Your task to perform on an android device: What's the latest news in space technology? Image 0: 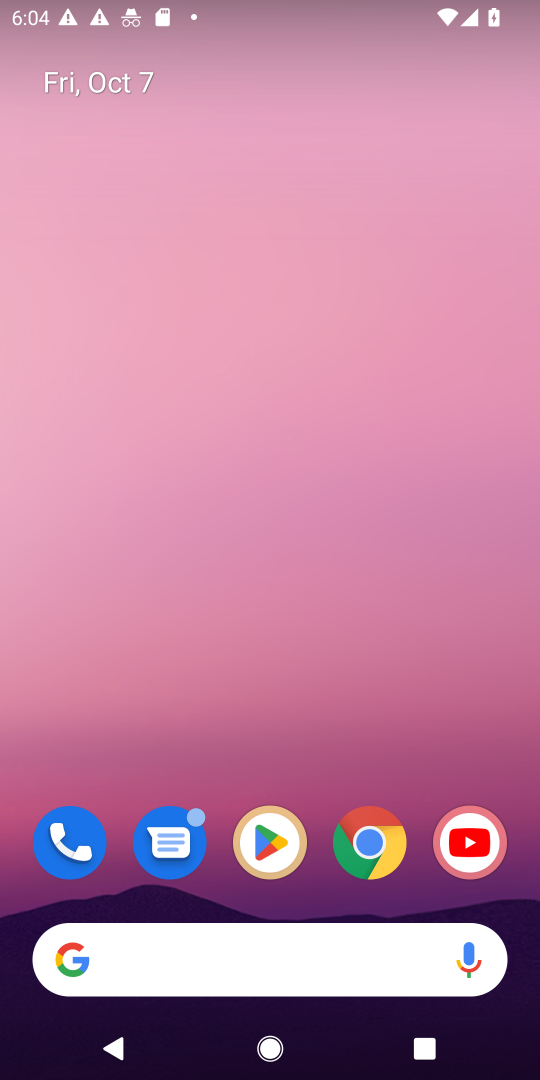
Step 0: drag from (281, 911) to (389, 51)
Your task to perform on an android device: What's the latest news in space technology? Image 1: 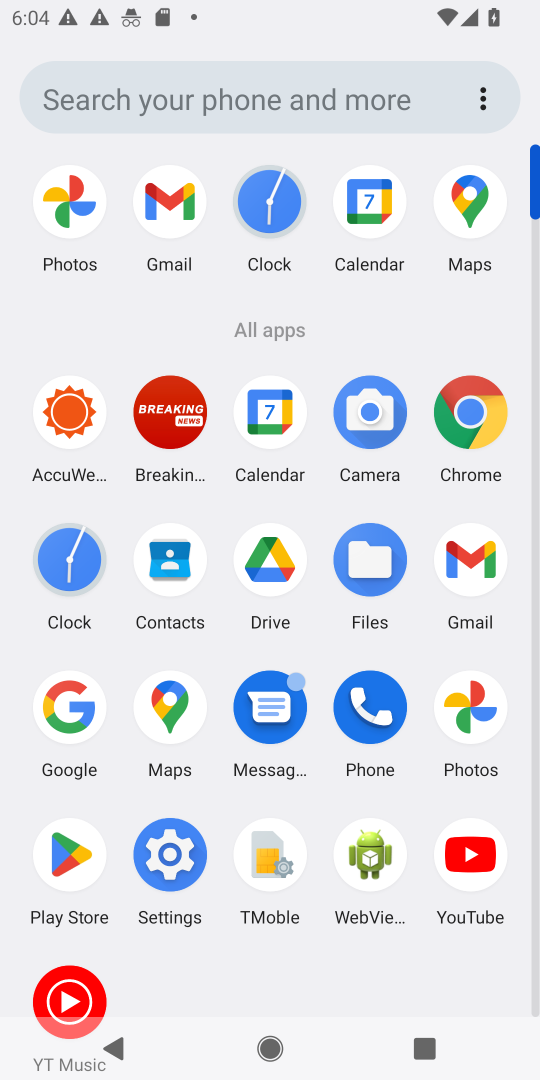
Step 1: click (74, 718)
Your task to perform on an android device: What's the latest news in space technology? Image 2: 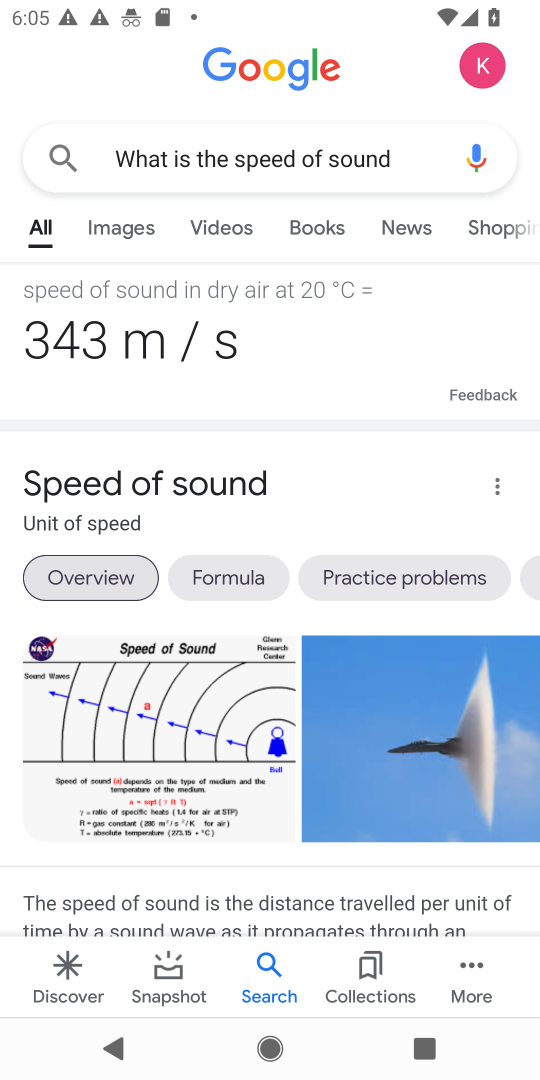
Step 2: click (389, 159)
Your task to perform on an android device: What's the latest news in space technology? Image 3: 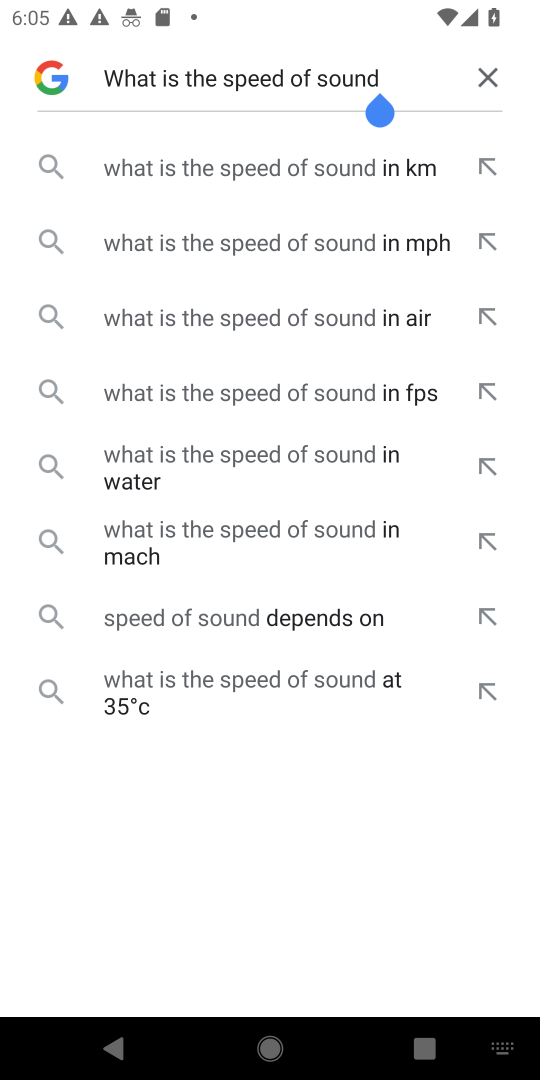
Step 3: click (501, 70)
Your task to perform on an android device: What's the latest news in space technology? Image 4: 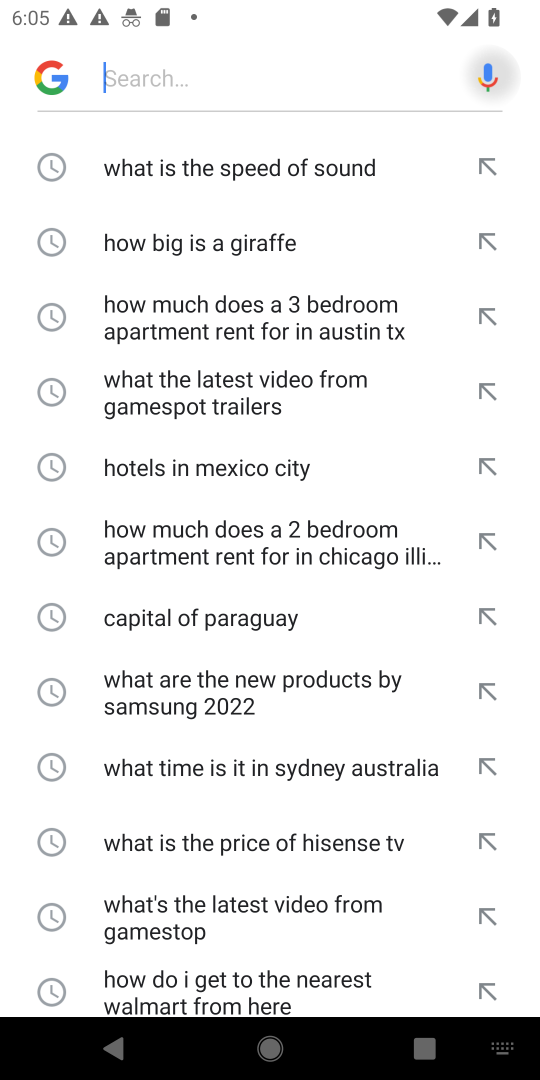
Step 4: click (493, 81)
Your task to perform on an android device: What's the latest news in space technology? Image 5: 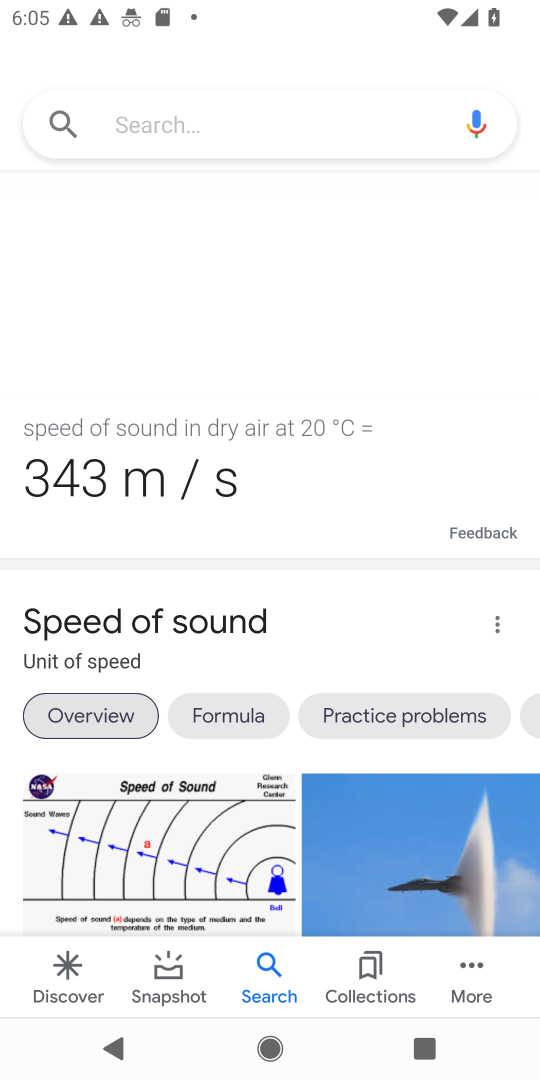
Step 5: click (216, 88)
Your task to perform on an android device: What's the latest news in space technology? Image 6: 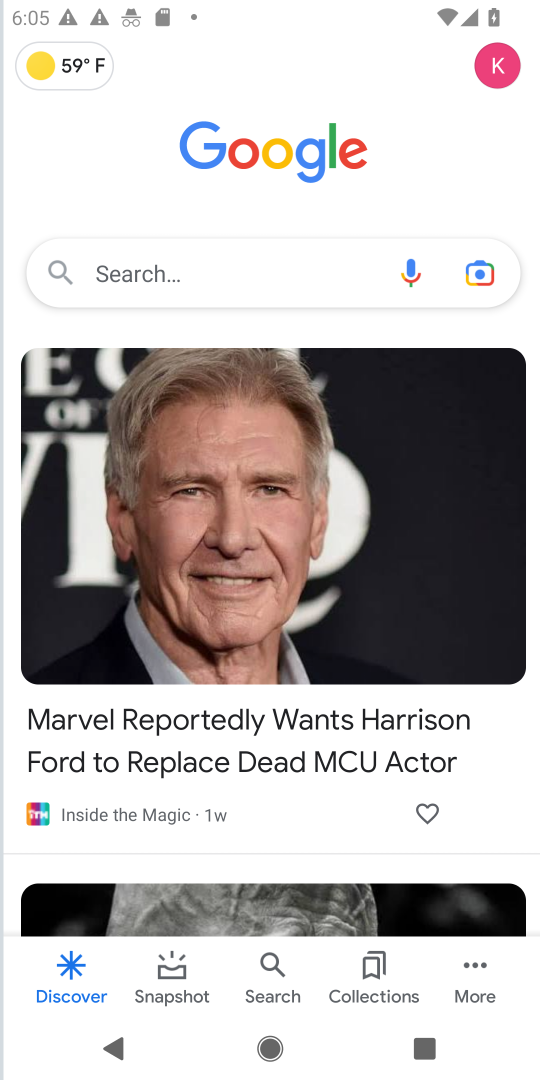
Step 6: type "latest news in space technology"
Your task to perform on an android device: What's the latest news in space technology? Image 7: 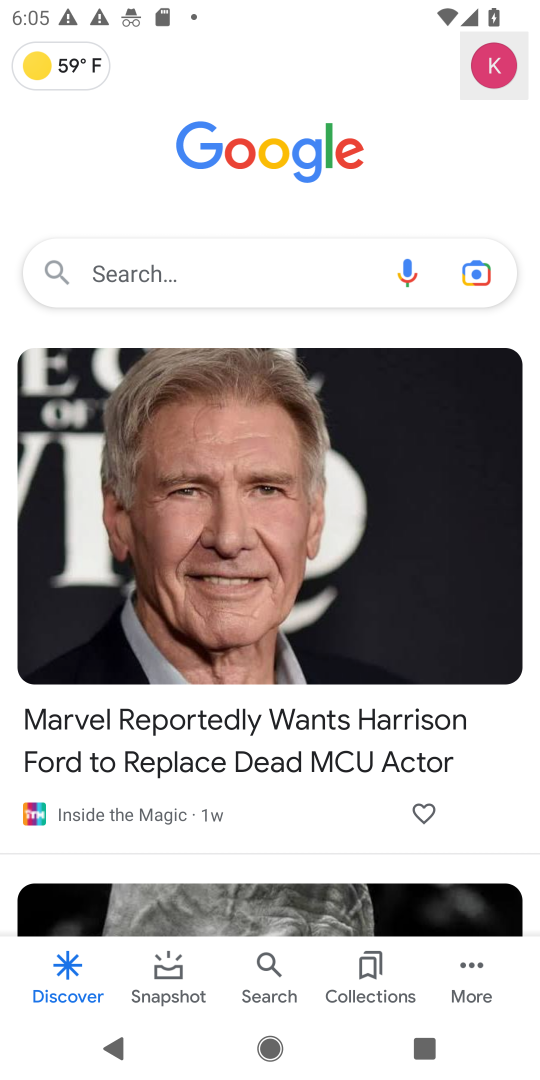
Step 7: click (218, 281)
Your task to perform on an android device: What's the latest news in space technology? Image 8: 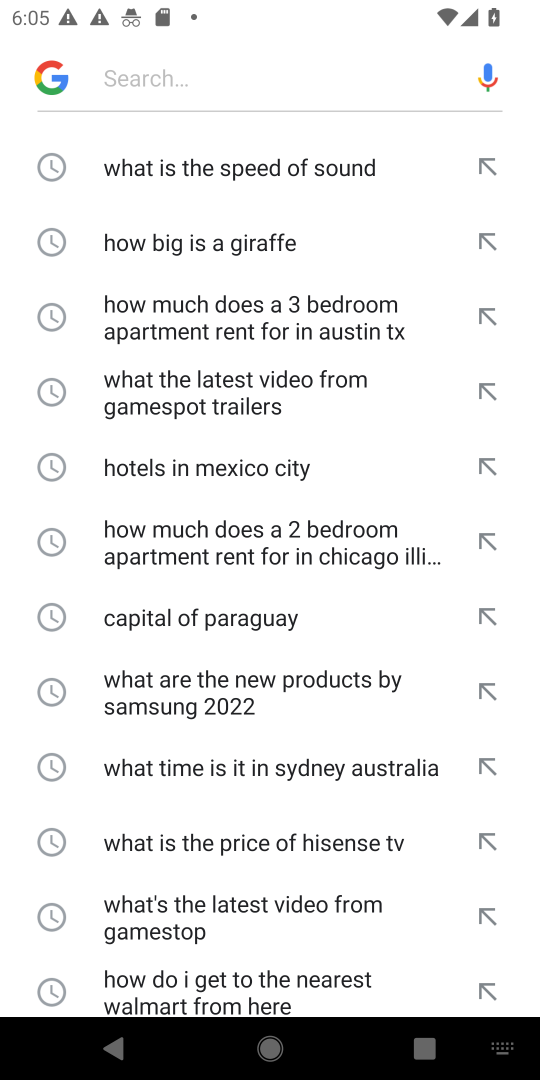
Step 8: type "What's the latest news in space technology"
Your task to perform on an android device: What's the latest news in space technology? Image 9: 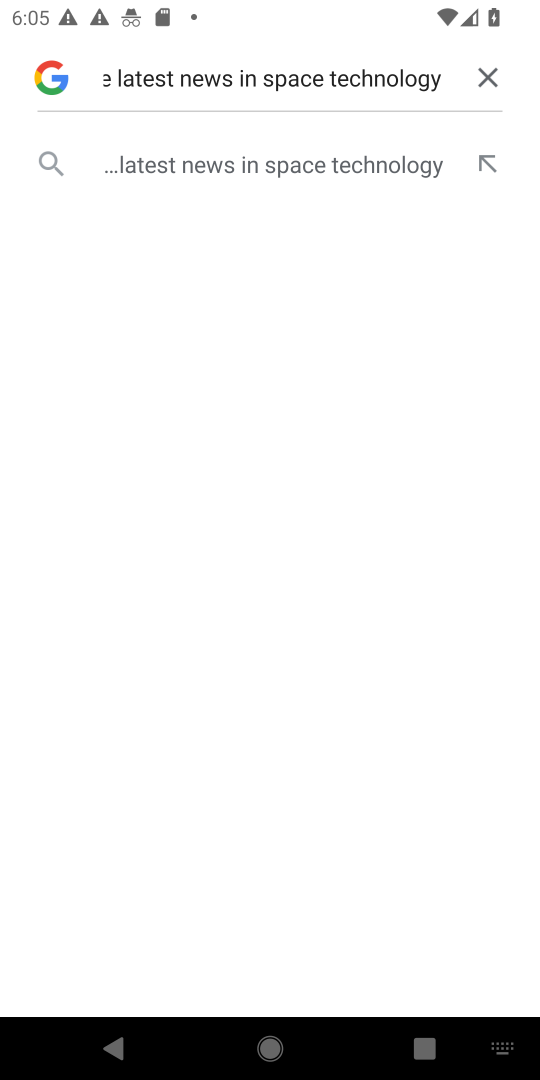
Step 9: click (294, 164)
Your task to perform on an android device: What's the latest news in space technology? Image 10: 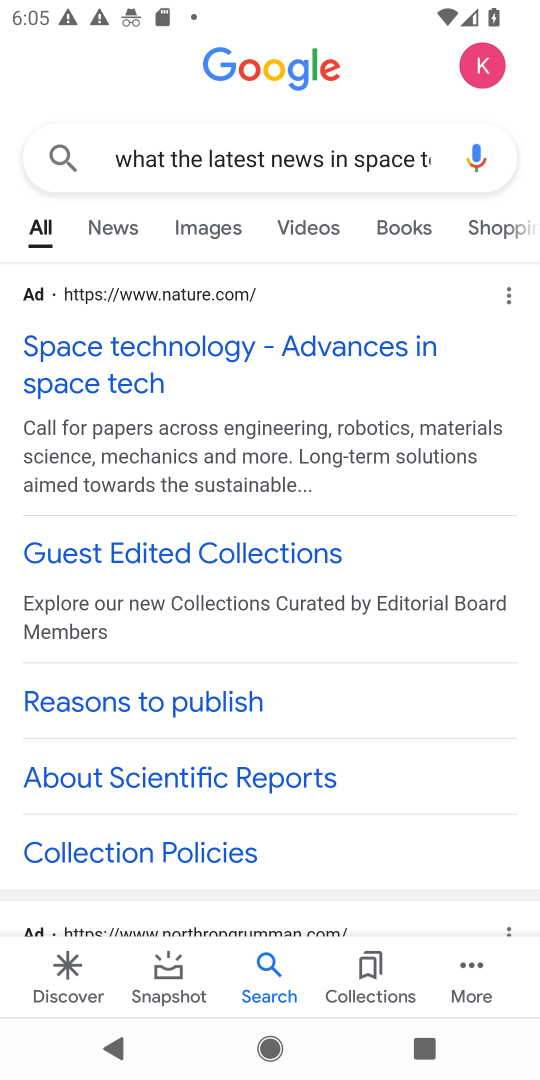
Step 10: task complete